Your task to perform on an android device: Open the map Image 0: 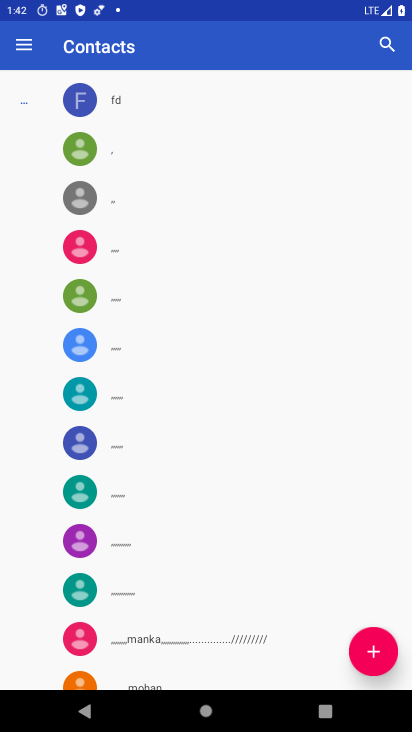
Step 0: press home button
Your task to perform on an android device: Open the map Image 1: 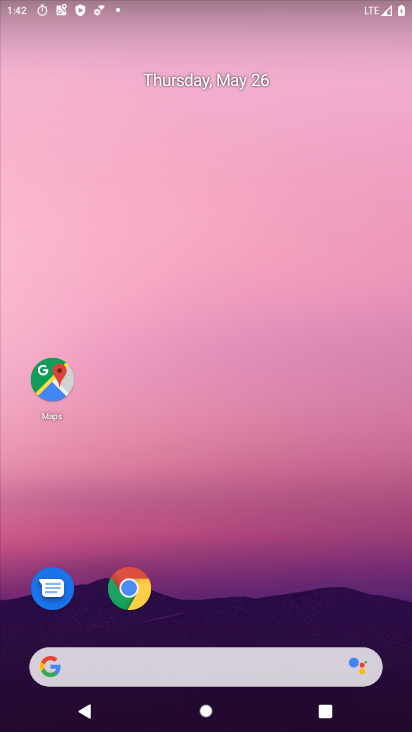
Step 1: click (53, 357)
Your task to perform on an android device: Open the map Image 2: 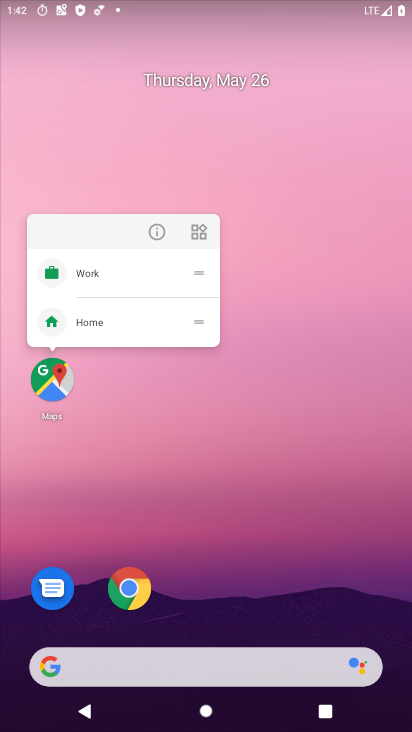
Step 2: click (61, 369)
Your task to perform on an android device: Open the map Image 3: 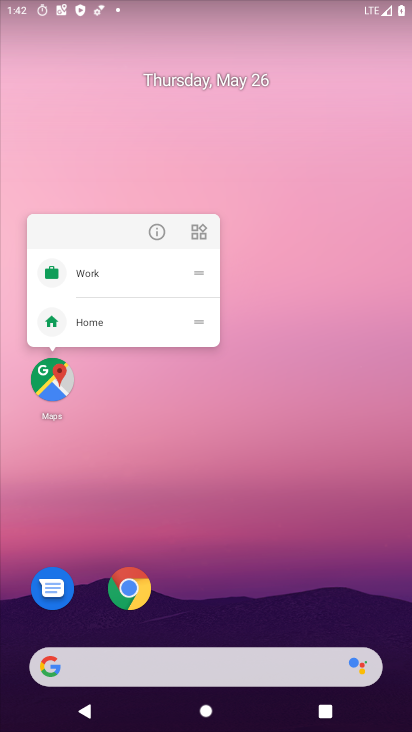
Step 3: click (59, 382)
Your task to perform on an android device: Open the map Image 4: 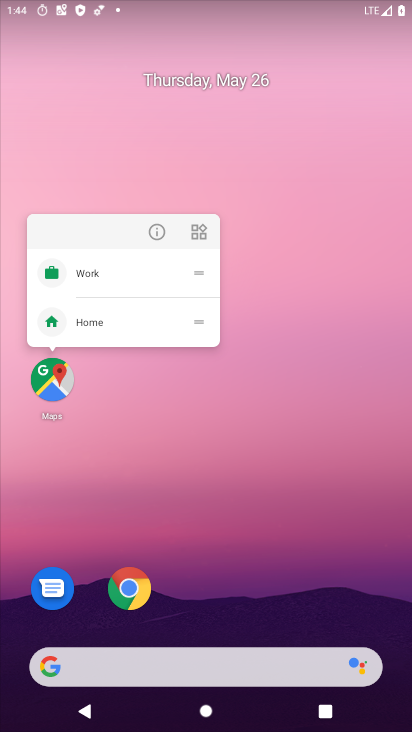
Step 4: click (51, 388)
Your task to perform on an android device: Open the map Image 5: 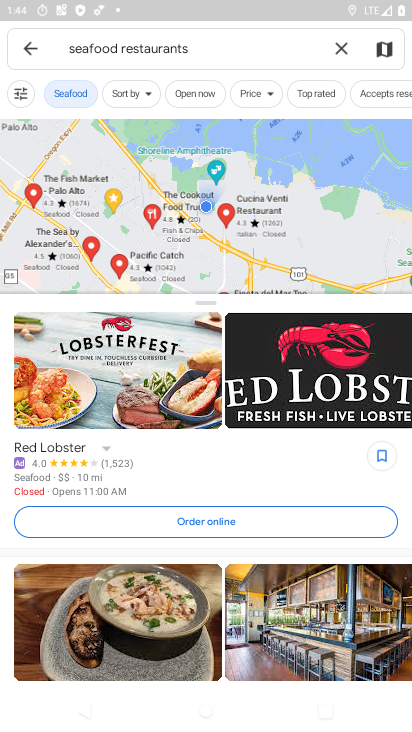
Step 5: click (30, 43)
Your task to perform on an android device: Open the map Image 6: 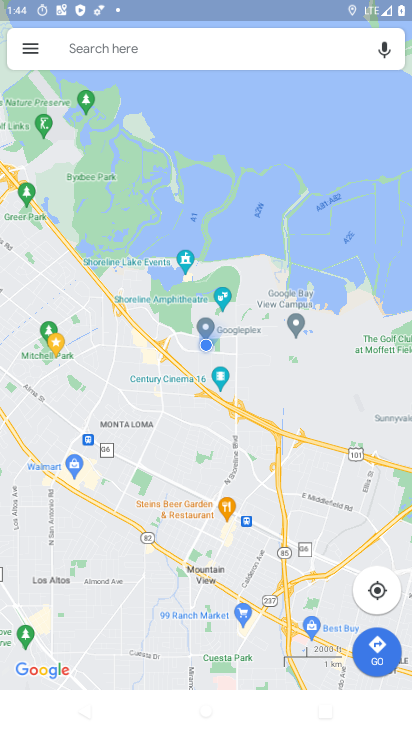
Step 6: task complete